Your task to perform on an android device: uninstall "Expedia: Hotels, Flights & Car" Image 0: 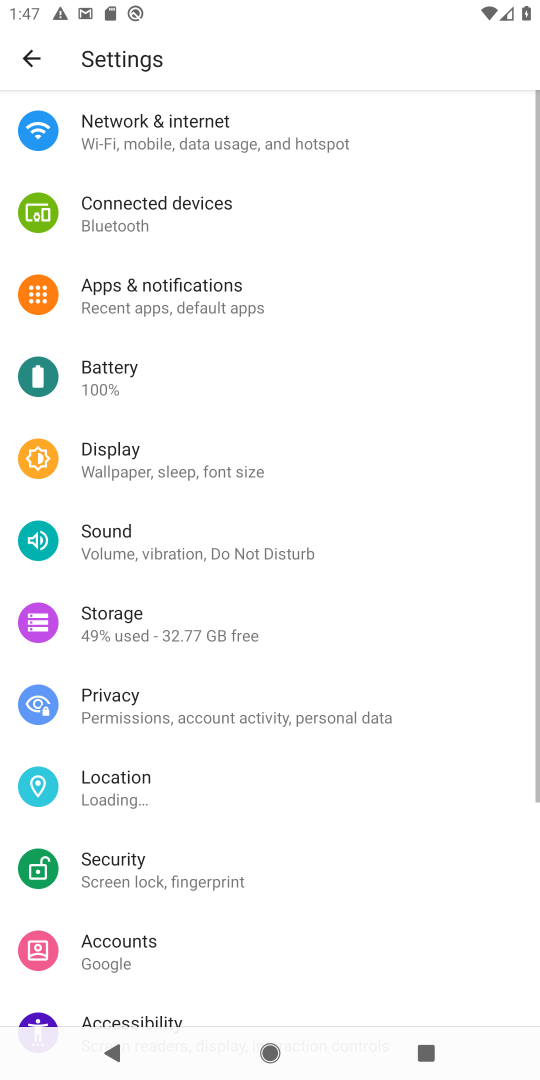
Step 0: press home button
Your task to perform on an android device: uninstall "Expedia: Hotels, Flights & Car" Image 1: 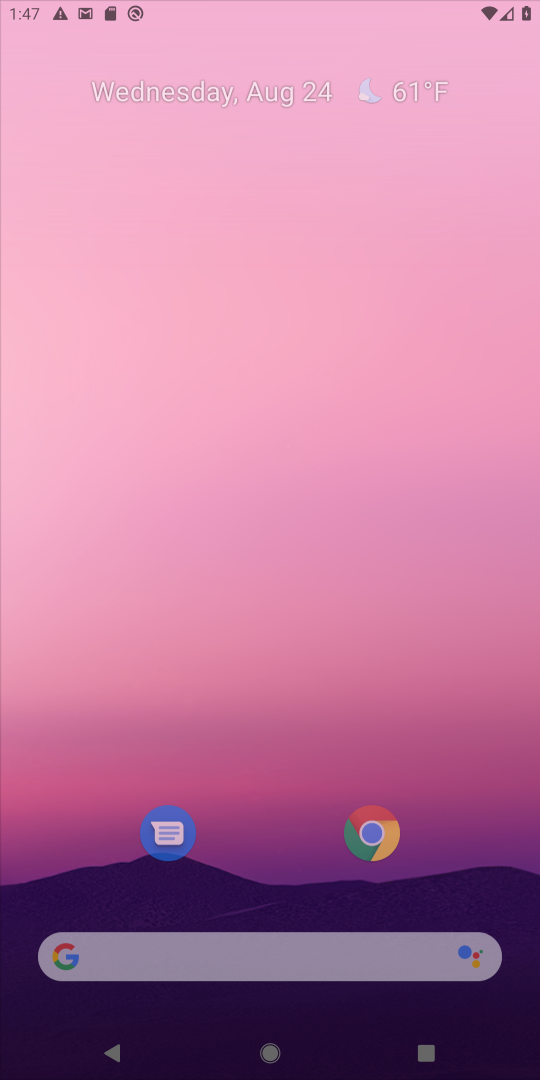
Step 1: press home button
Your task to perform on an android device: uninstall "Expedia: Hotels, Flights & Car" Image 2: 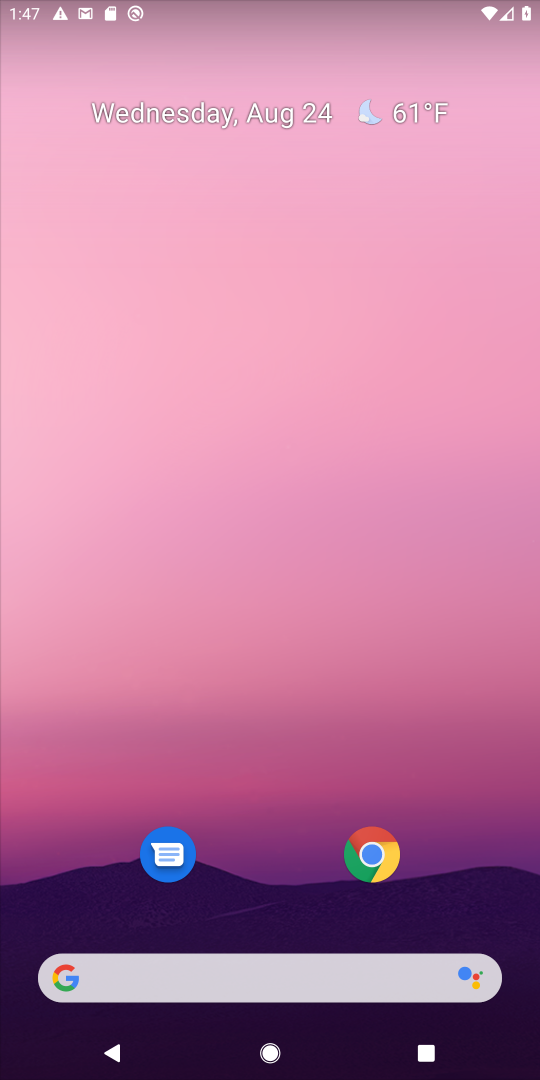
Step 2: drag from (461, 747) to (450, 81)
Your task to perform on an android device: uninstall "Expedia: Hotels, Flights & Car" Image 3: 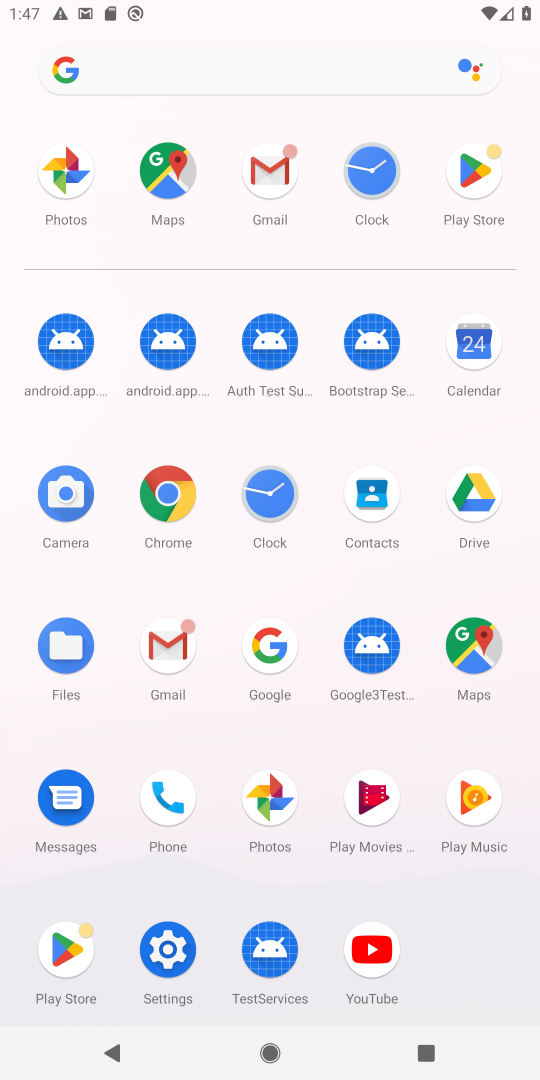
Step 3: click (471, 176)
Your task to perform on an android device: uninstall "Expedia: Hotels, Flights & Car" Image 4: 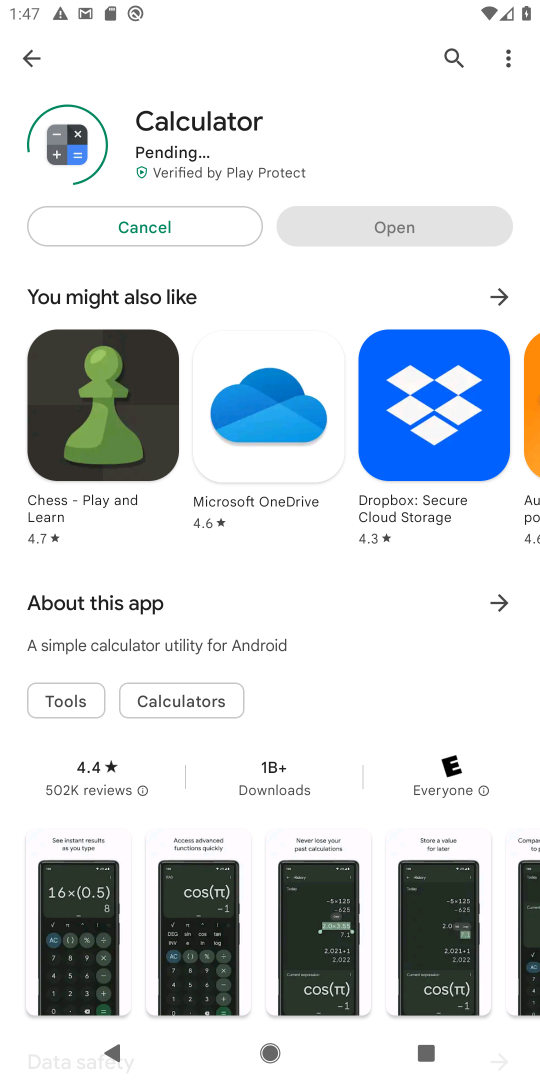
Step 4: press back button
Your task to perform on an android device: uninstall "Expedia: Hotels, Flights & Car" Image 5: 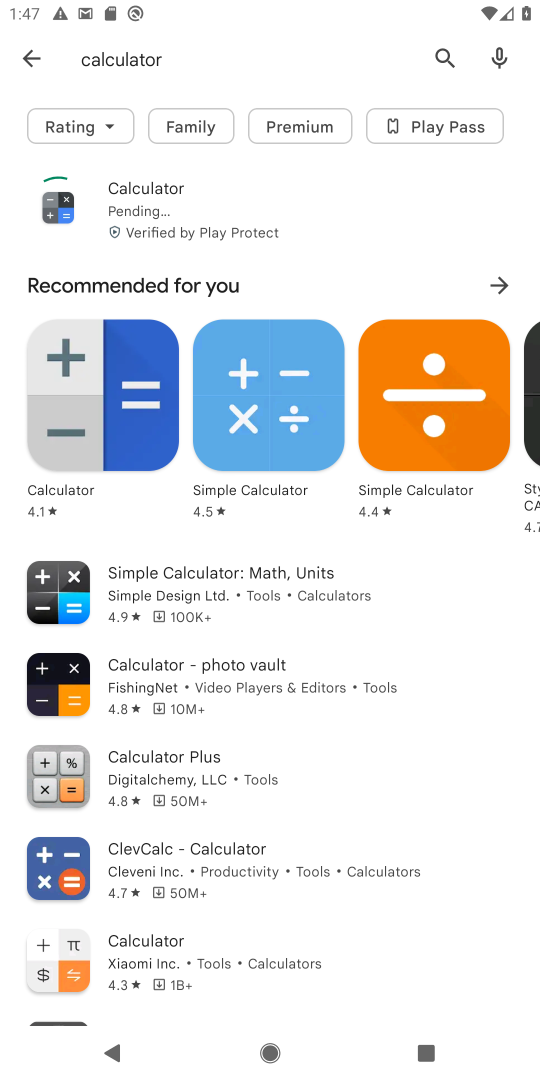
Step 5: press back button
Your task to perform on an android device: uninstall "Expedia: Hotels, Flights & Car" Image 6: 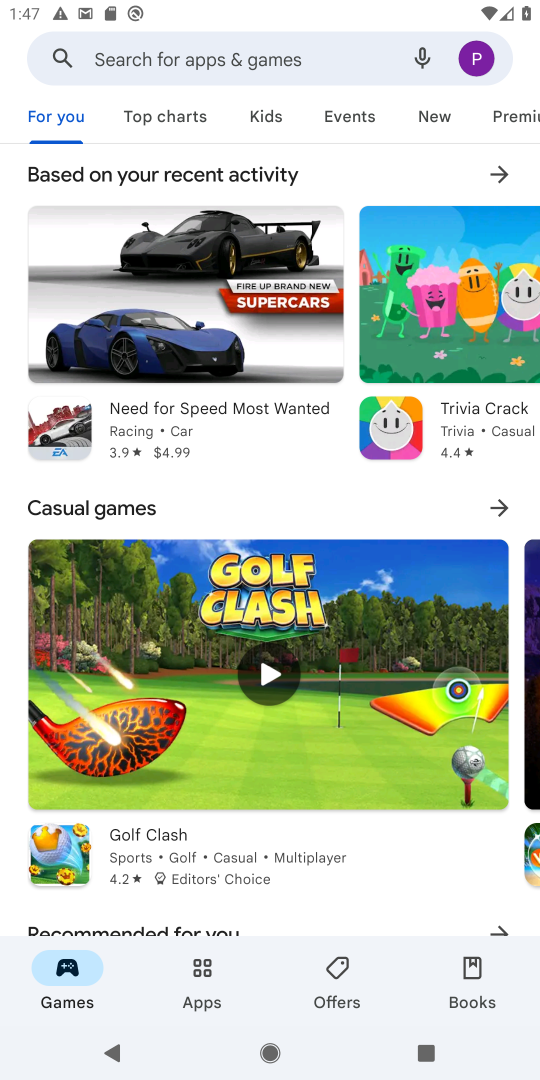
Step 6: click (307, 58)
Your task to perform on an android device: uninstall "Expedia: Hotels, Flights & Car" Image 7: 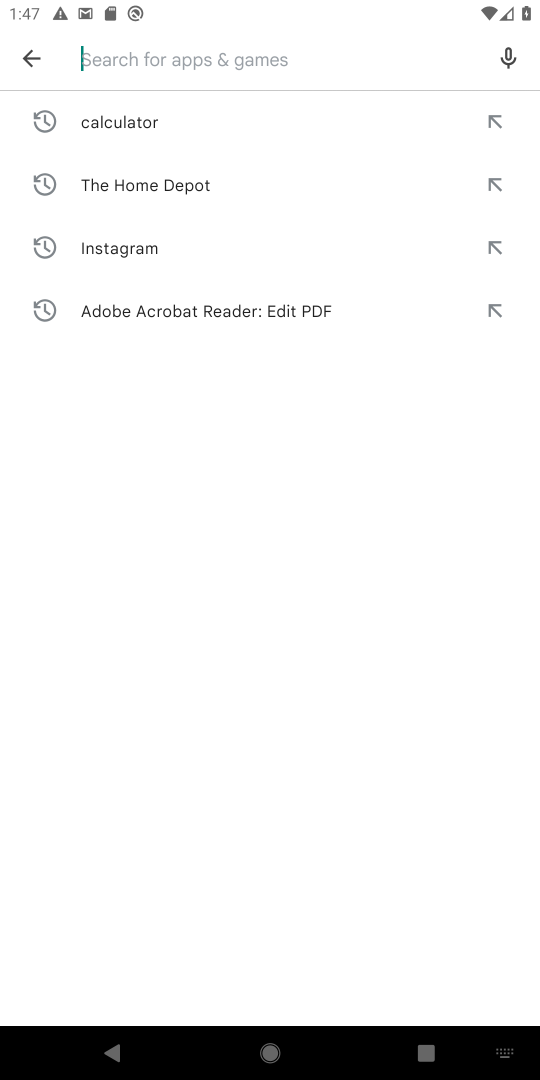
Step 7: type "Expedia: Hotels, Flights & Car"
Your task to perform on an android device: uninstall "Expedia: Hotels, Flights & Car" Image 8: 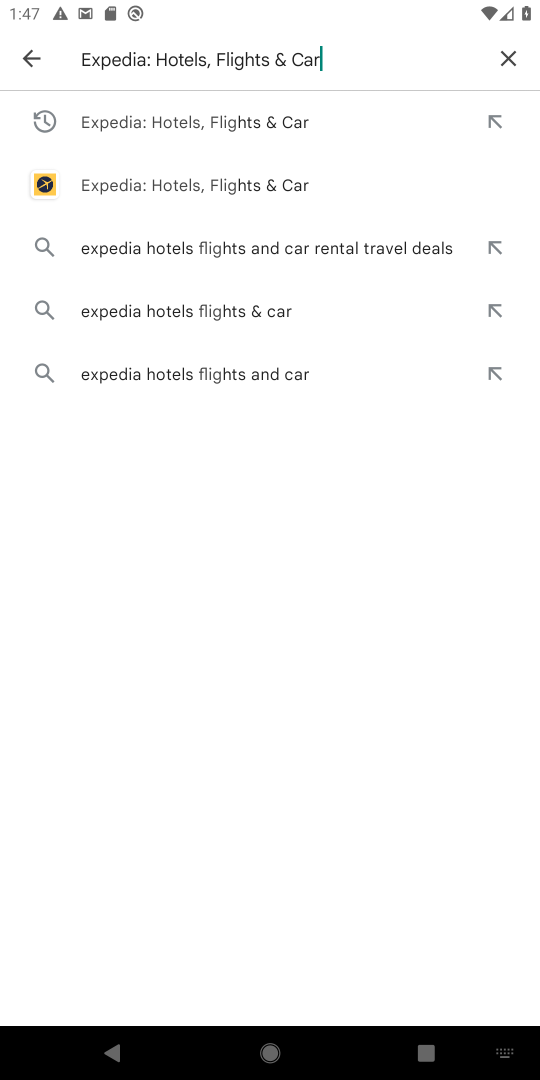
Step 8: press enter
Your task to perform on an android device: uninstall "Expedia: Hotels, Flights & Car" Image 9: 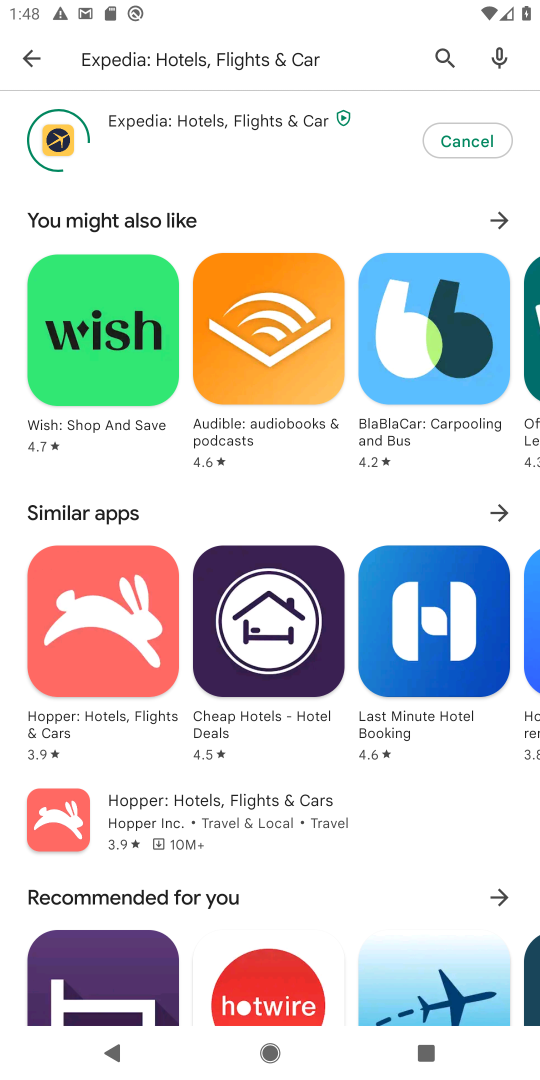
Step 9: task complete